Your task to perform on an android device: toggle pop-ups in chrome Image 0: 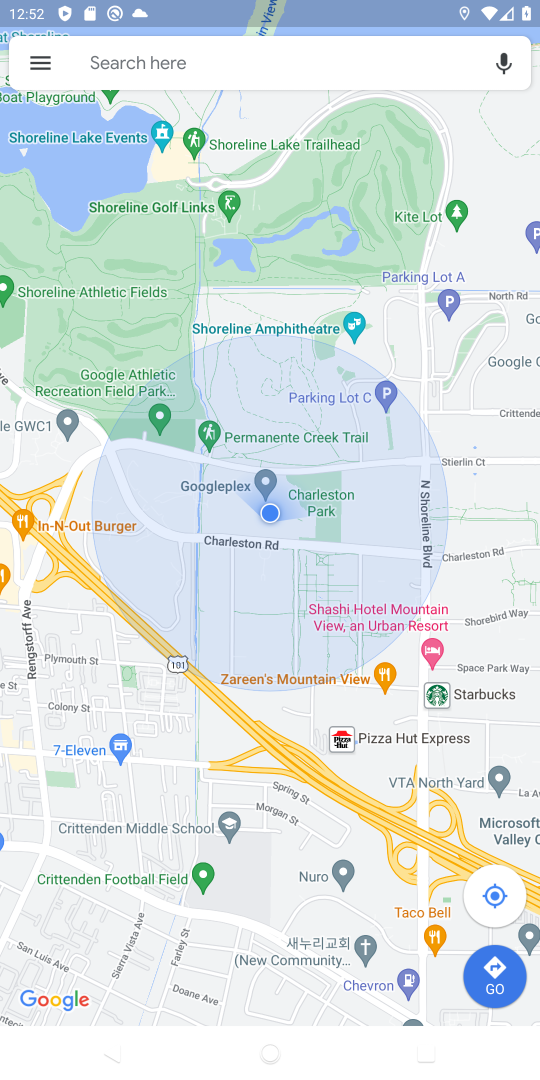
Step 0: press home button
Your task to perform on an android device: toggle pop-ups in chrome Image 1: 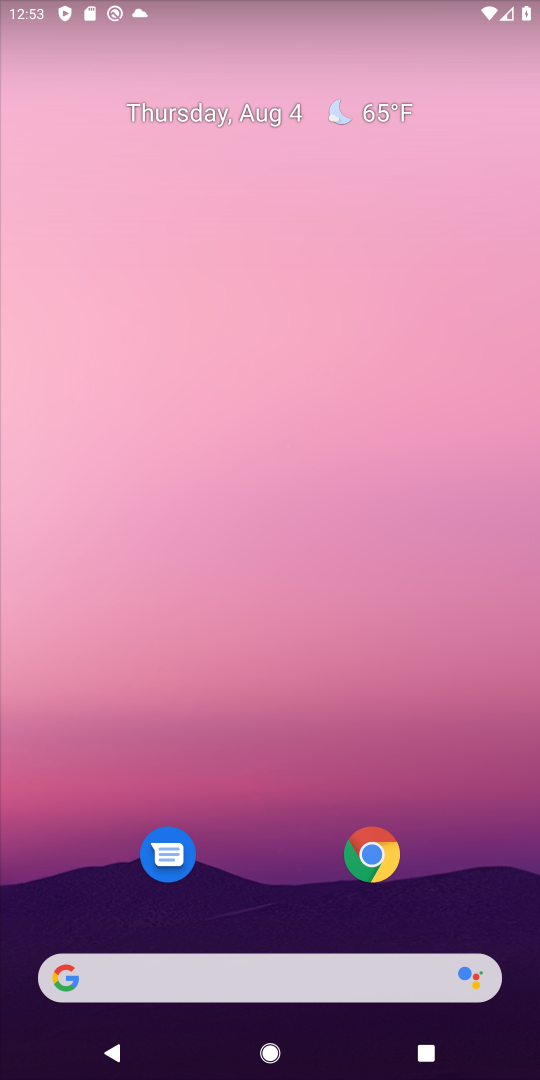
Step 1: click (359, 861)
Your task to perform on an android device: toggle pop-ups in chrome Image 2: 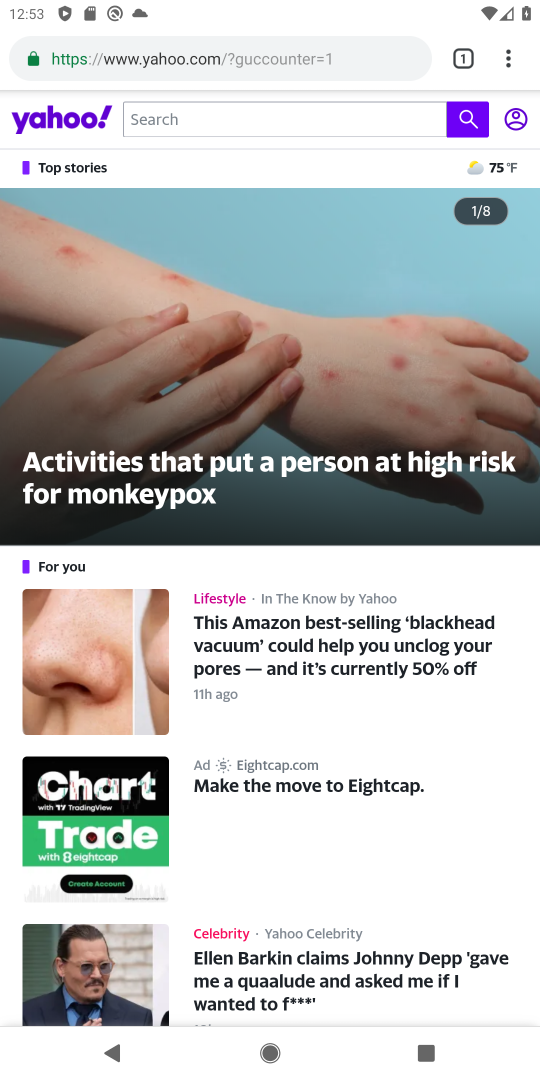
Step 2: task complete